Your task to perform on an android device: Empty the shopping cart on target. Search for usb-b on target, select the first entry, add it to the cart, then select checkout. Image 0: 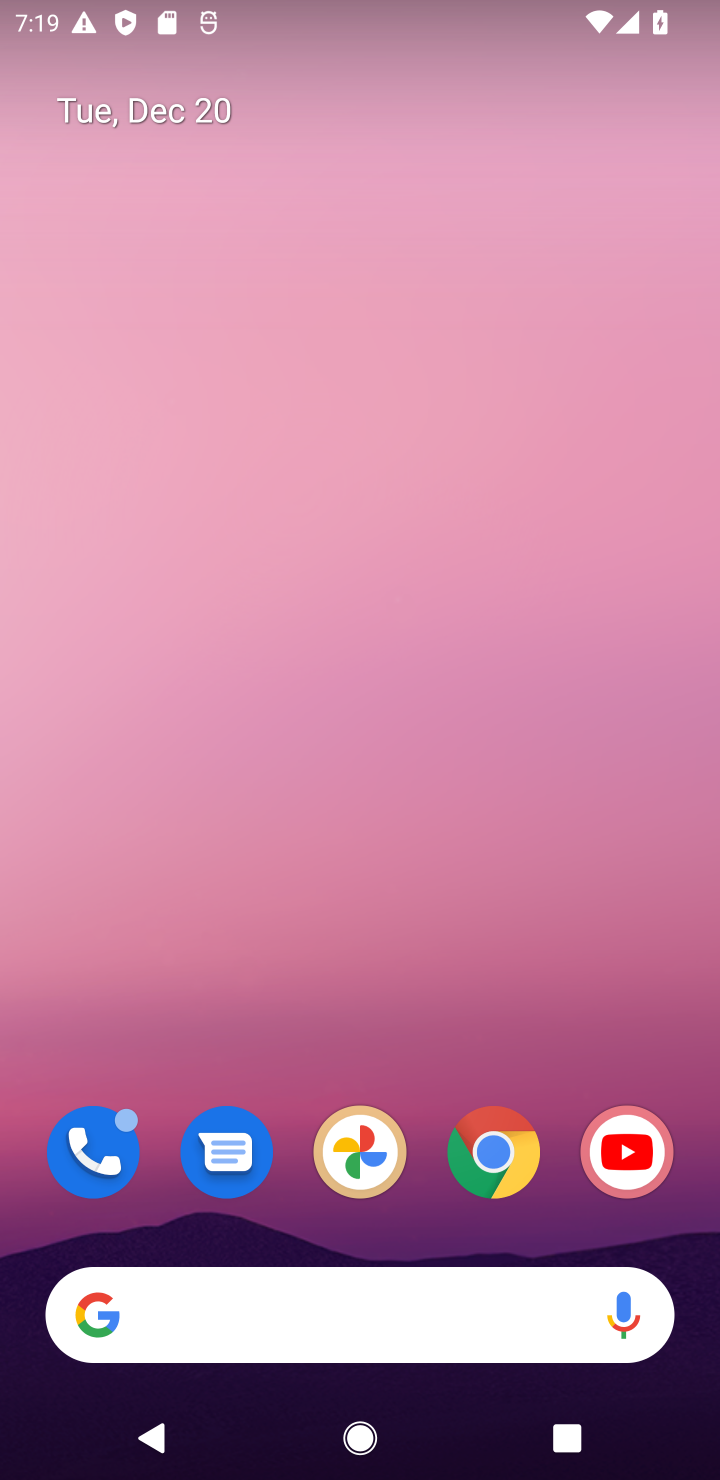
Step 0: click (424, 1152)
Your task to perform on an android device: Empty the shopping cart on target. Search for usb-b on target, select the first entry, add it to the cart, then select checkout. Image 1: 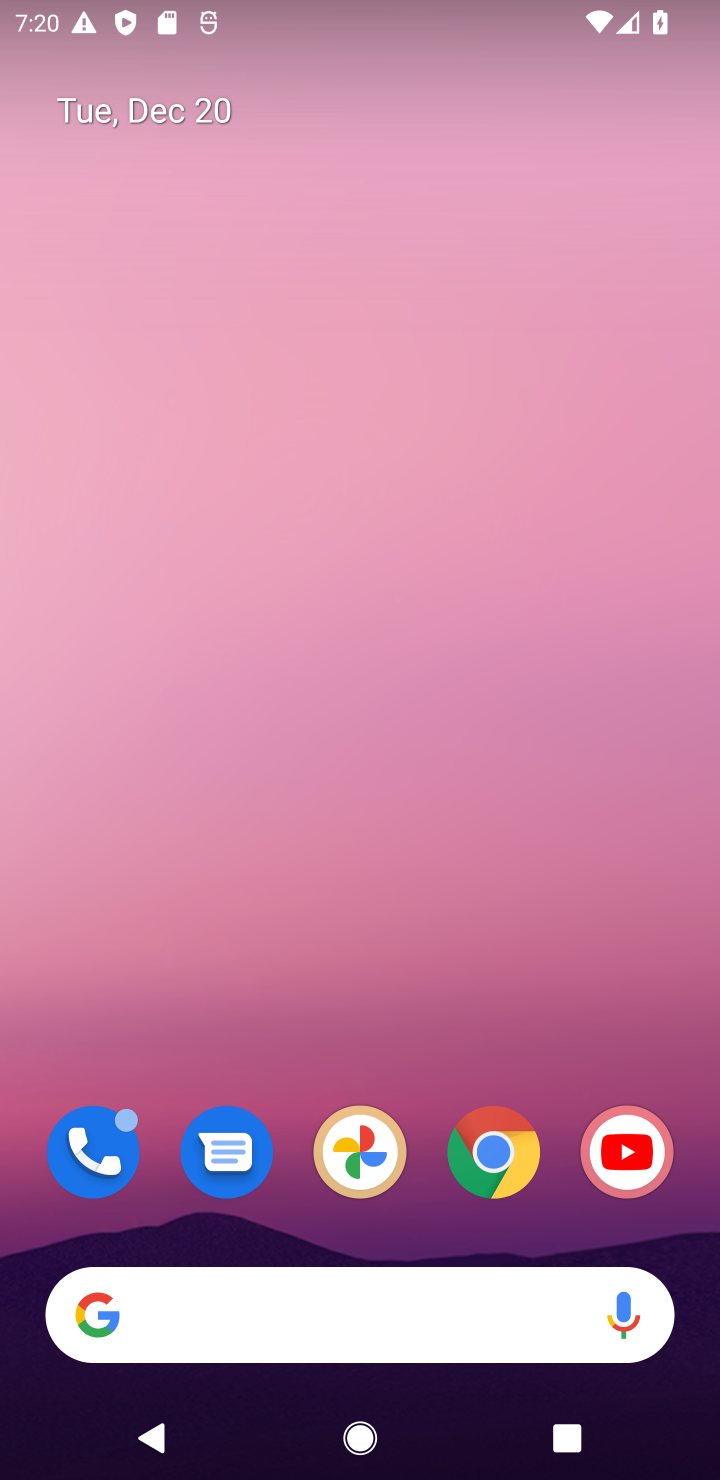
Step 1: click (476, 1185)
Your task to perform on an android device: Empty the shopping cart on target. Search for usb-b on target, select the first entry, add it to the cart, then select checkout. Image 2: 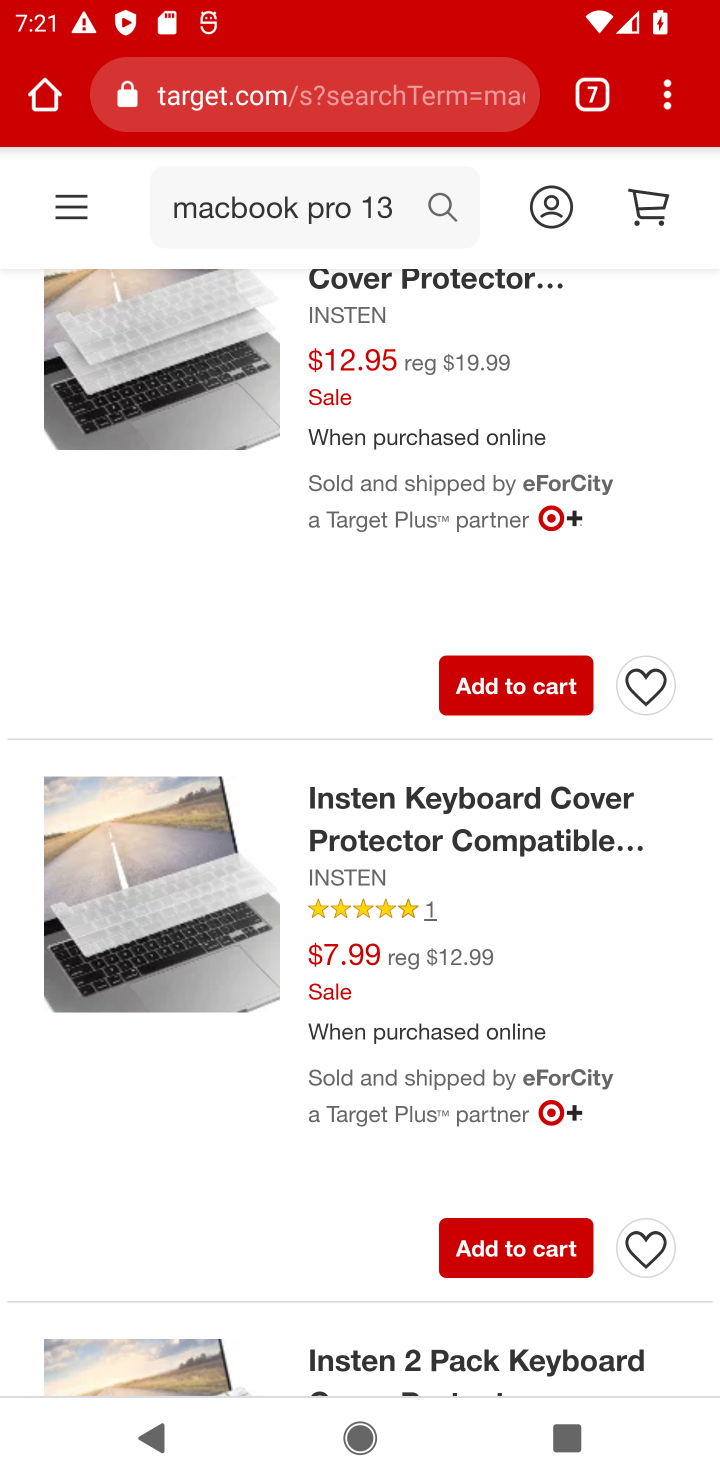
Step 2: click (294, 201)
Your task to perform on an android device: Empty the shopping cart on target. Search for usb-b on target, select the first entry, add it to the cart, then select checkout. Image 3: 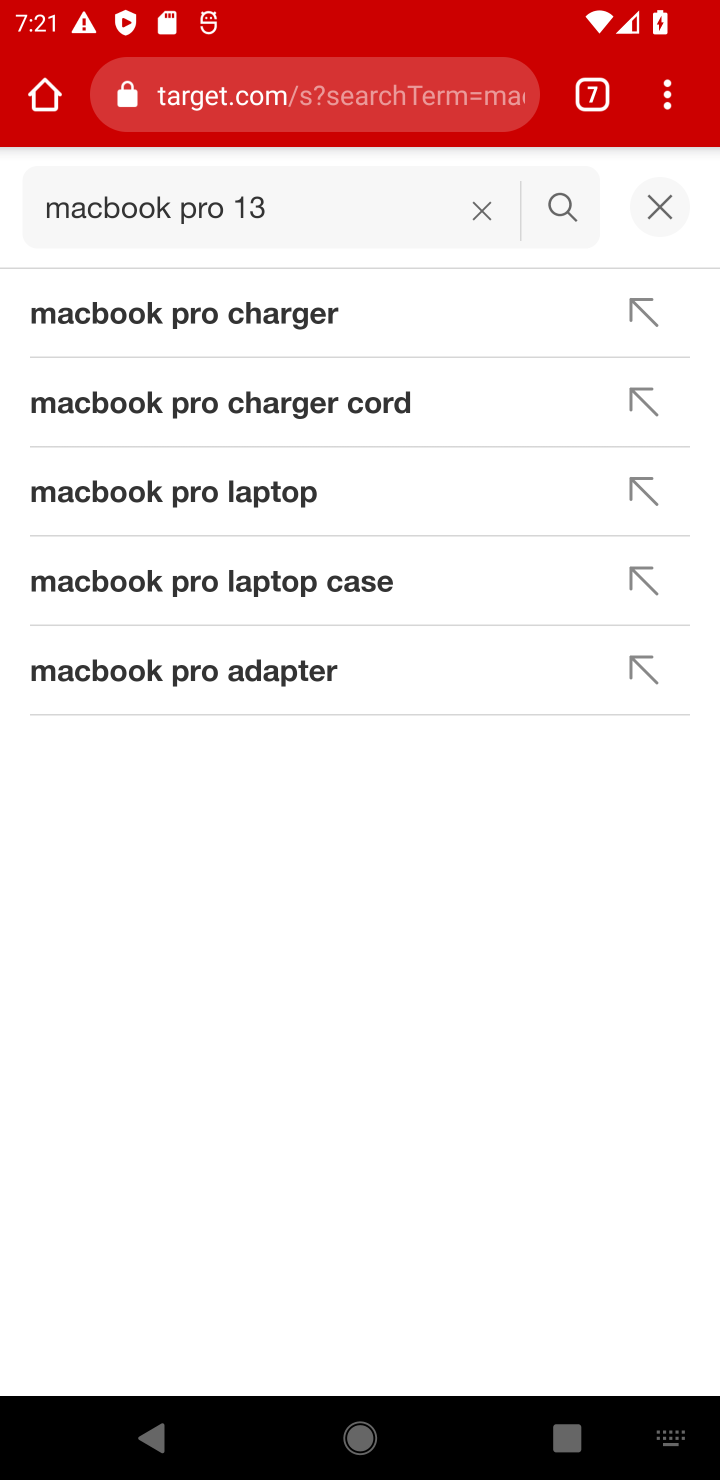
Step 3: click (484, 204)
Your task to perform on an android device: Empty the shopping cart on target. Search for usb-b on target, select the first entry, add it to the cart, then select checkout. Image 4: 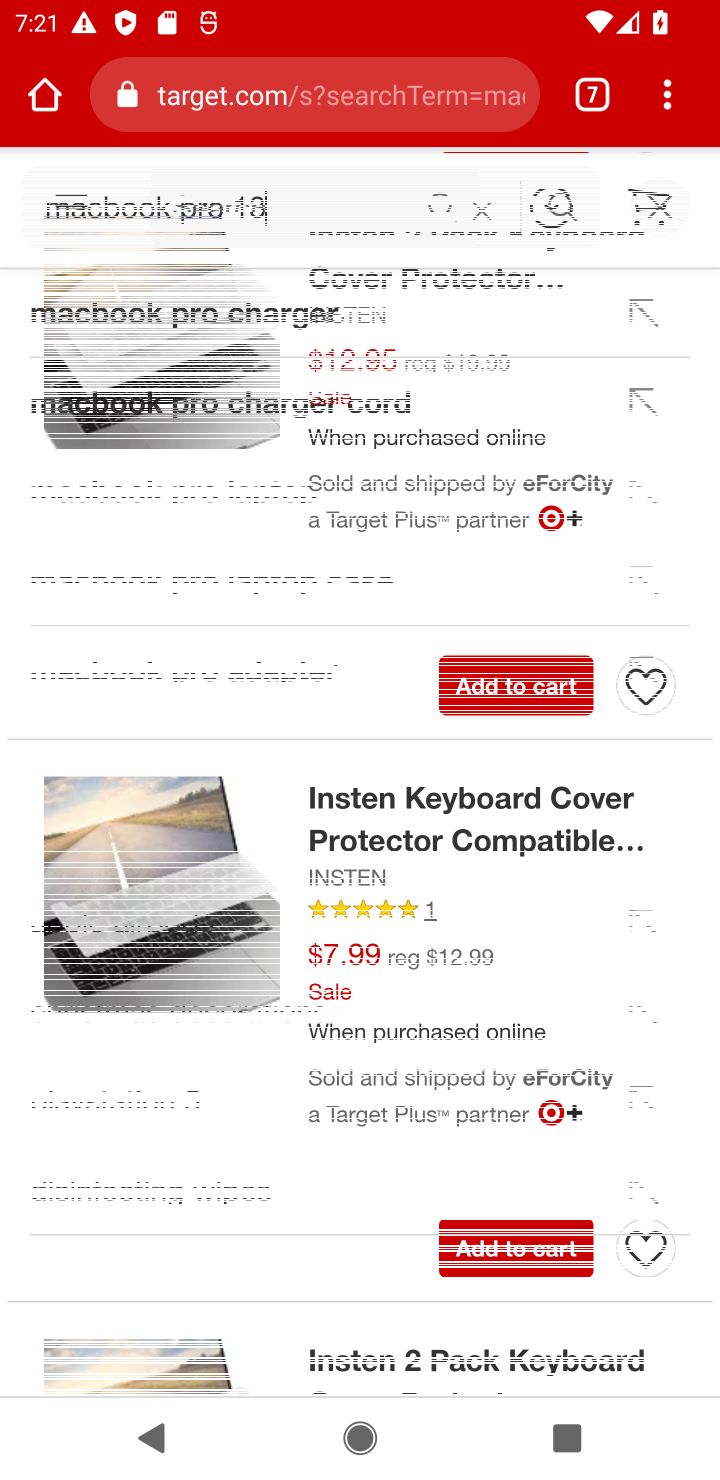
Step 4: type "usb-b"
Your task to perform on an android device: Empty the shopping cart on target. Search for usb-b on target, select the first entry, add it to the cart, then select checkout. Image 5: 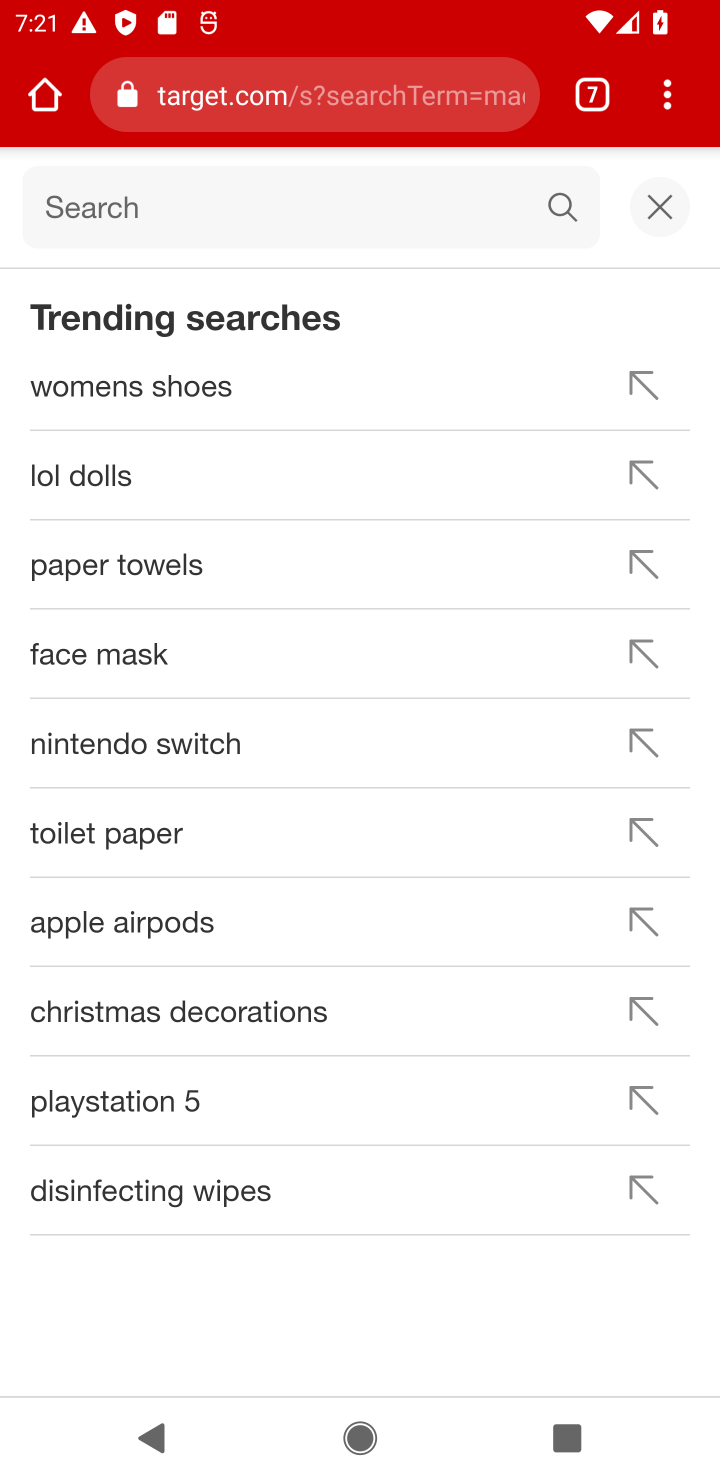
Step 5: type "usb-b"
Your task to perform on an android device: Empty the shopping cart on target. Search for usb-b on target, select the first entry, add it to the cart, then select checkout. Image 6: 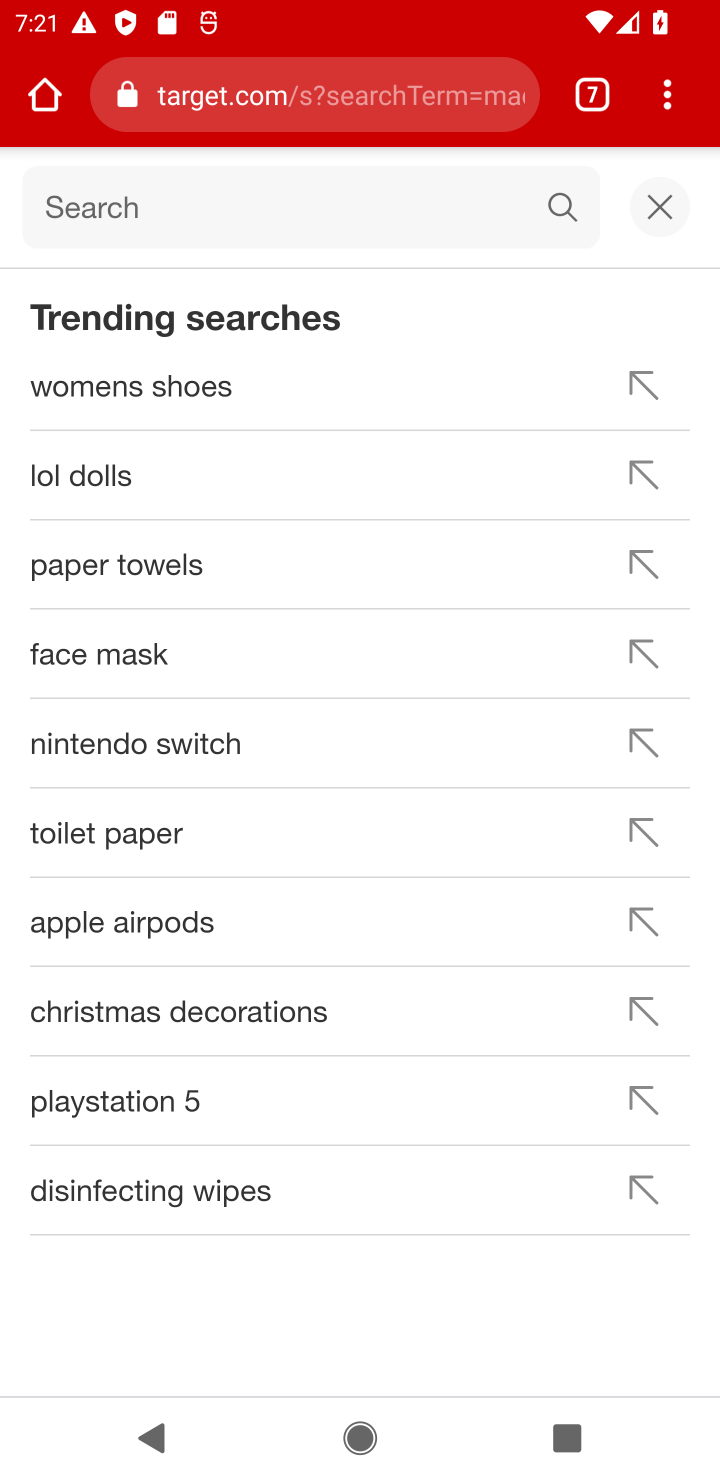
Step 6: click (173, 219)
Your task to perform on an android device: Empty the shopping cart on target. Search for usb-b on target, select the first entry, add it to the cart, then select checkout. Image 7: 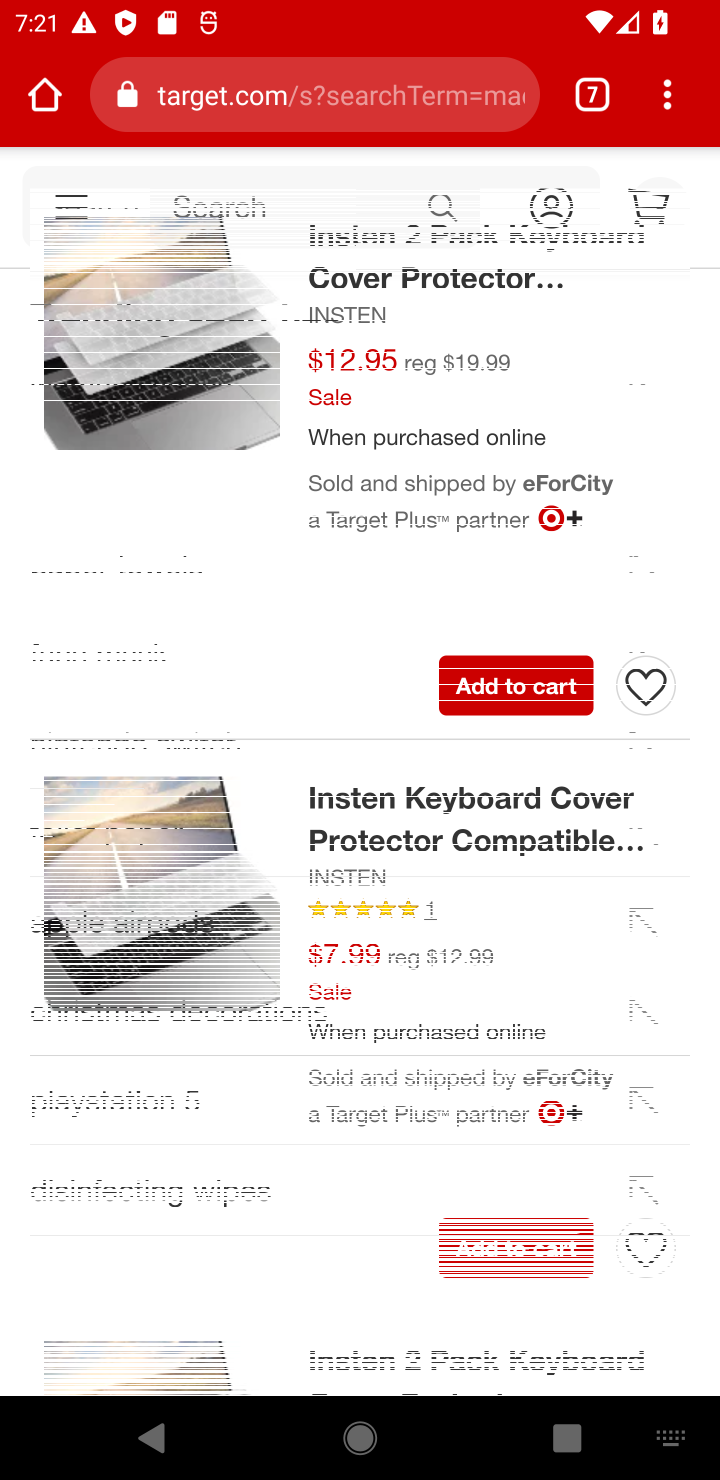
Step 7: type "usb-b"
Your task to perform on an android device: Empty the shopping cart on target. Search for usb-b on target, select the first entry, add it to the cart, then select checkout. Image 8: 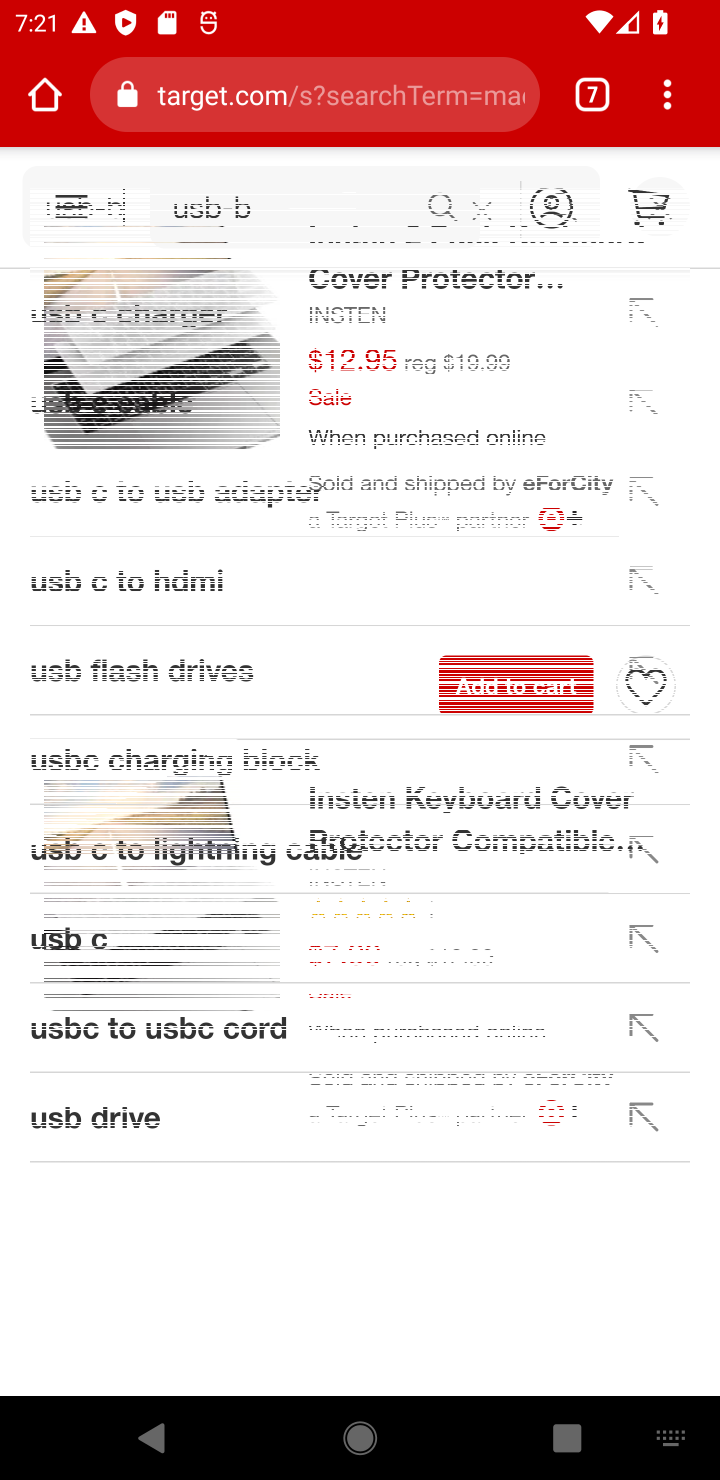
Step 8: click (566, 209)
Your task to perform on an android device: Empty the shopping cart on target. Search for usb-b on target, select the first entry, add it to the cart, then select checkout. Image 9: 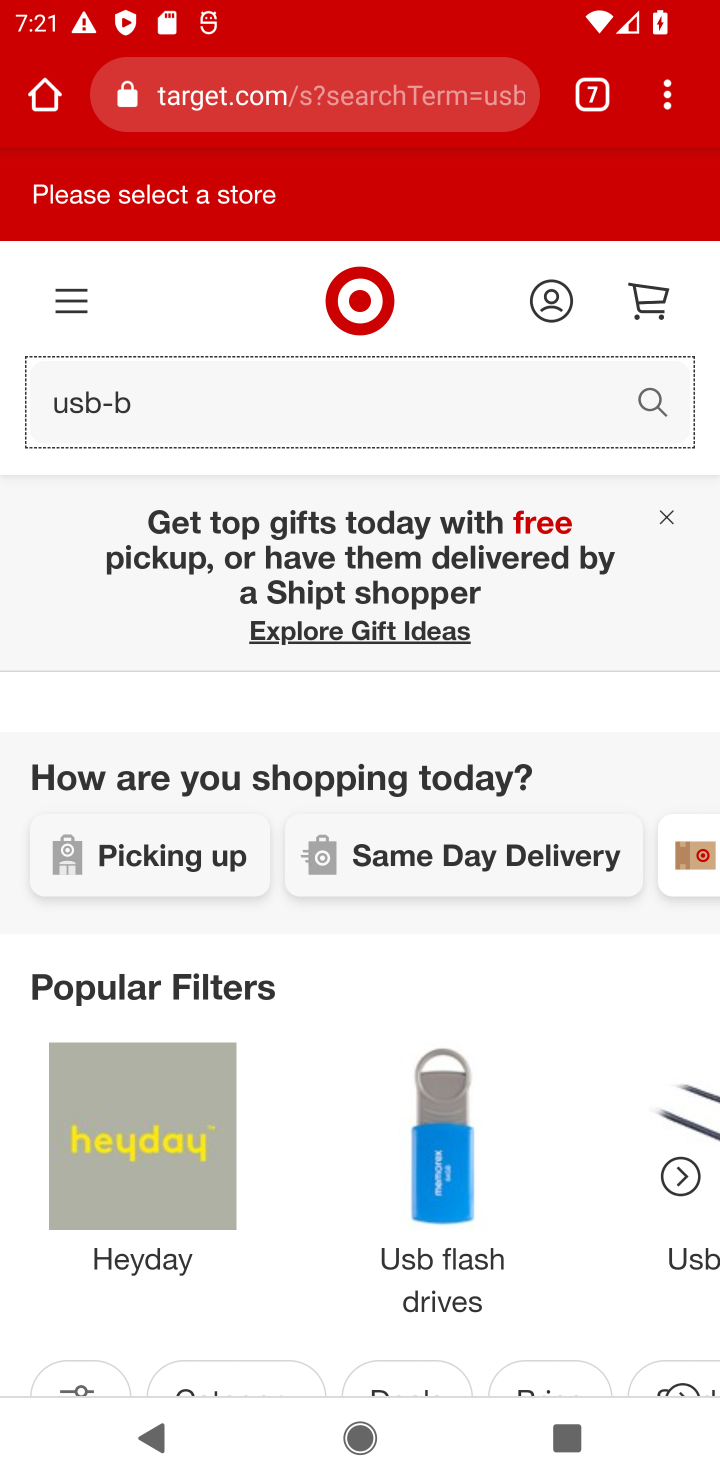
Step 9: drag from (218, 1233) to (456, 512)
Your task to perform on an android device: Empty the shopping cart on target. Search for usb-b on target, select the first entry, add it to the cart, then select checkout. Image 10: 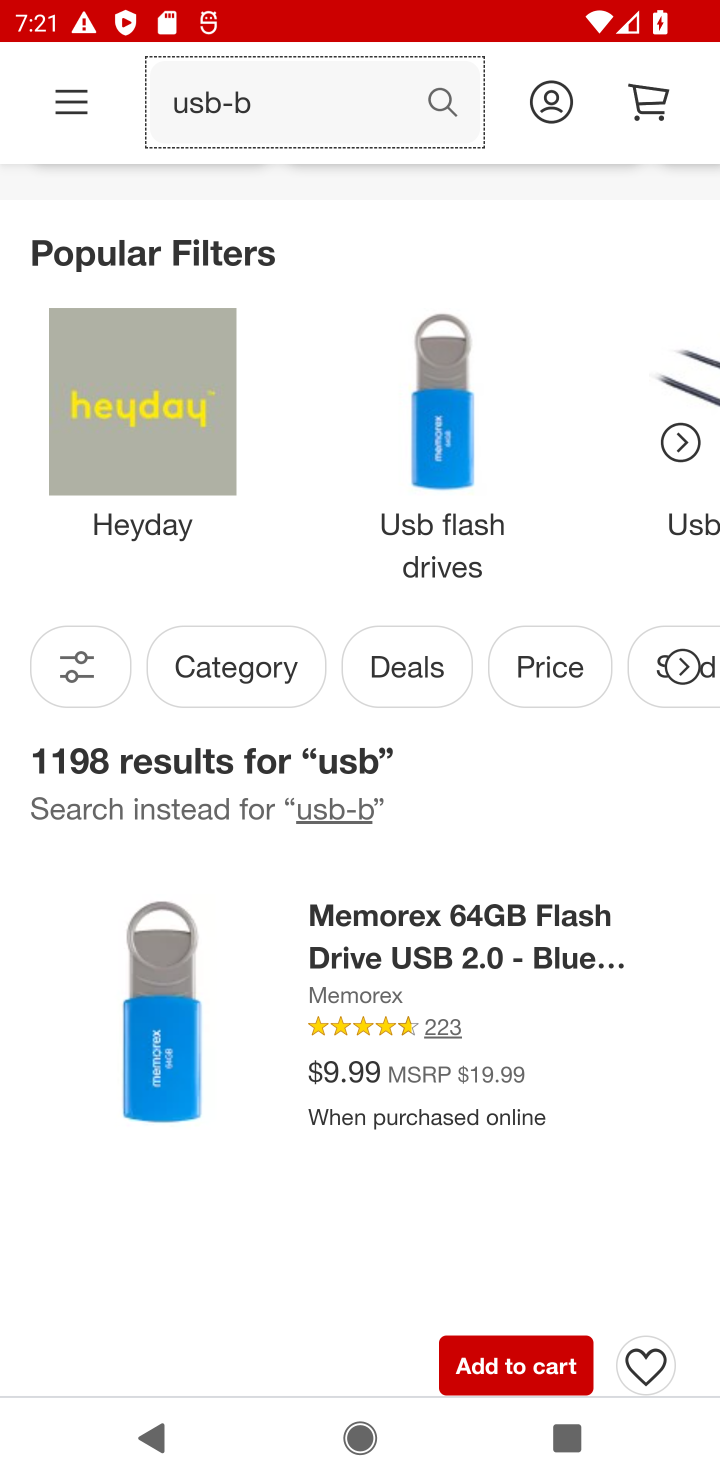
Step 10: drag from (282, 1137) to (649, 397)
Your task to perform on an android device: Empty the shopping cart on target. Search for usb-b on target, select the first entry, add it to the cart, then select checkout. Image 11: 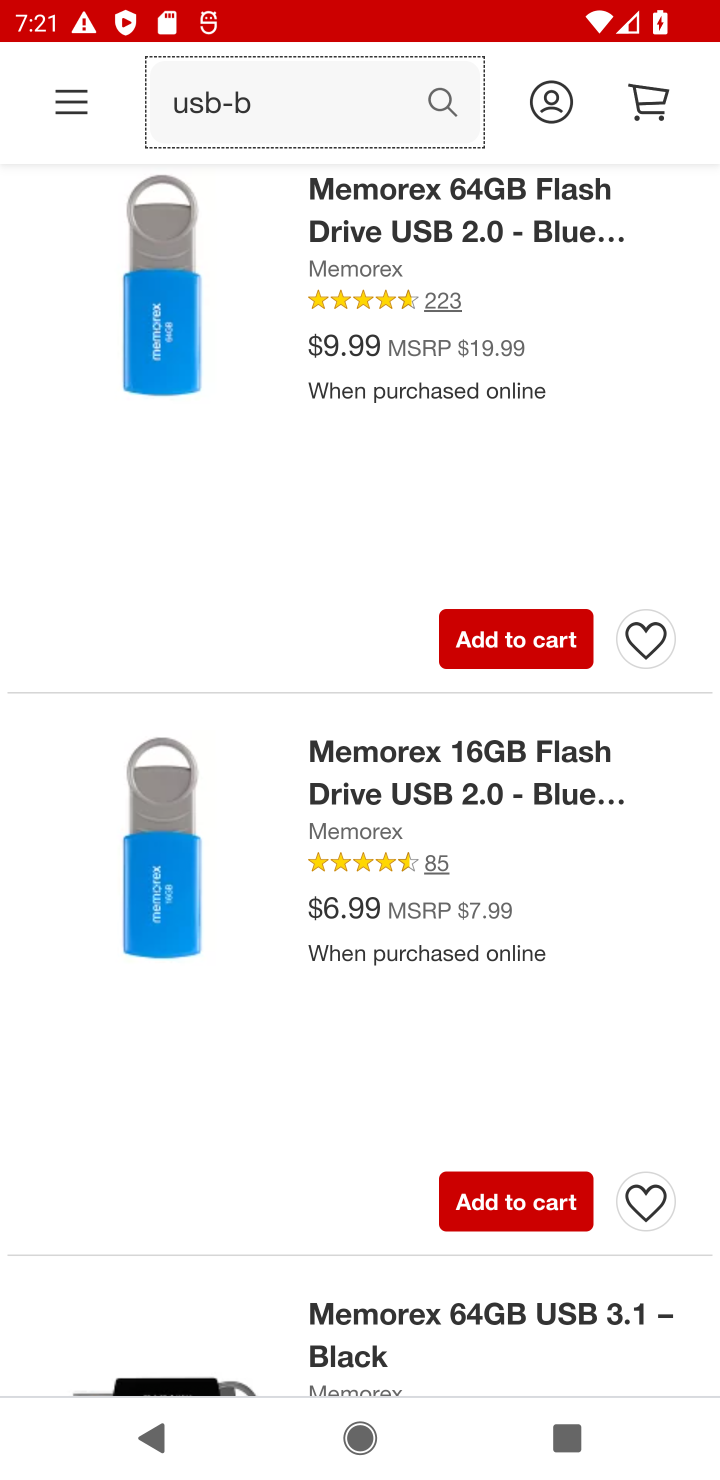
Step 11: click (509, 632)
Your task to perform on an android device: Empty the shopping cart on target. Search for usb-b on target, select the first entry, add it to the cart, then select checkout. Image 12: 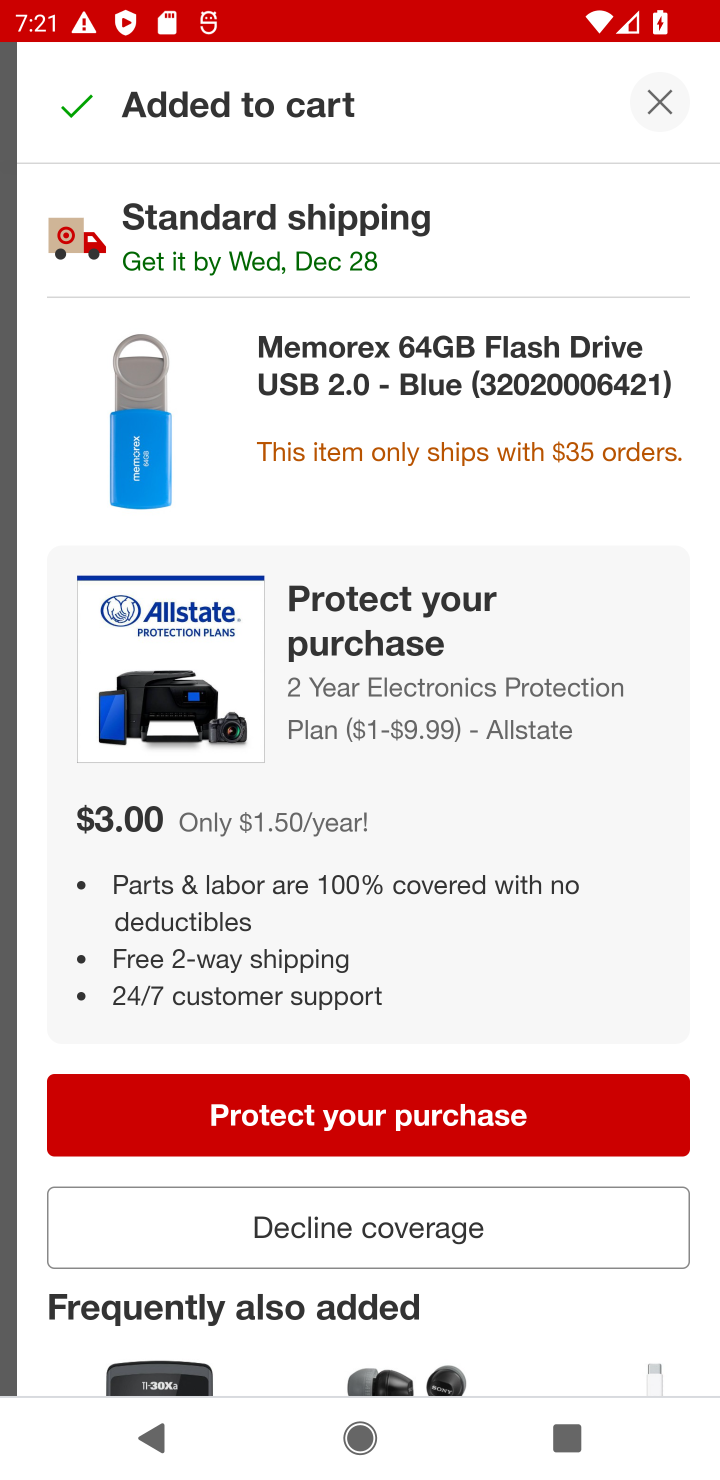
Step 12: task complete